Your task to perform on an android device: What's the weather going to be tomorrow? Image 0: 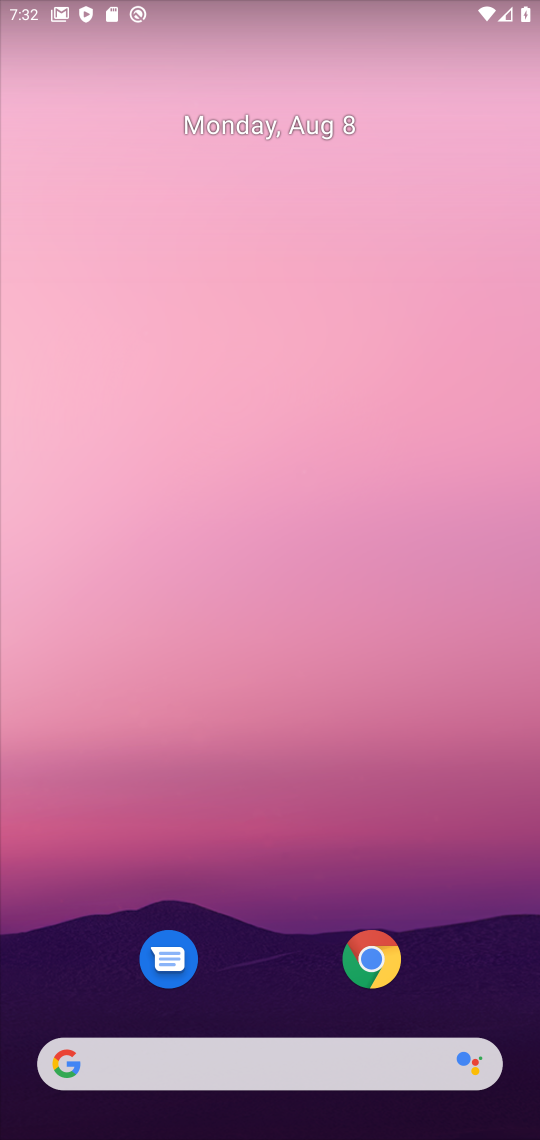
Step 0: drag from (482, 985) to (210, 68)
Your task to perform on an android device: What's the weather going to be tomorrow? Image 1: 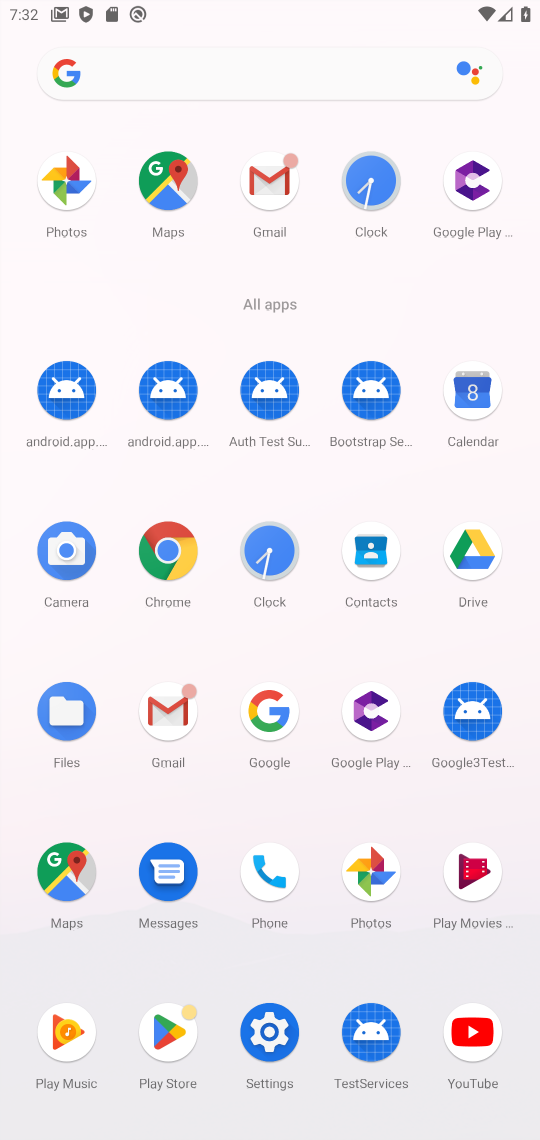
Step 1: click (269, 723)
Your task to perform on an android device: What's the weather going to be tomorrow? Image 2: 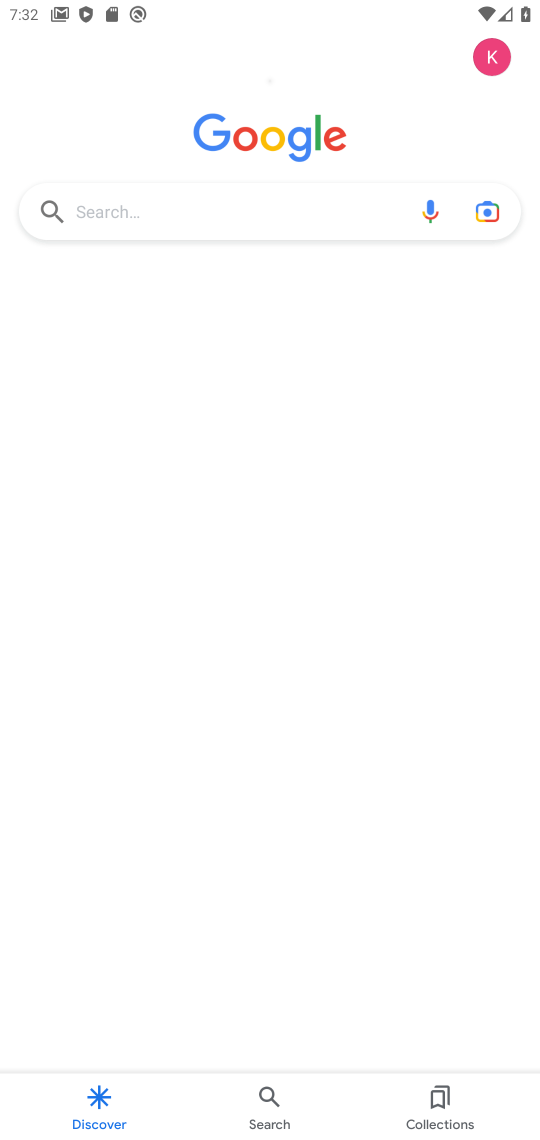
Step 2: click (148, 210)
Your task to perform on an android device: What's the weather going to be tomorrow? Image 3: 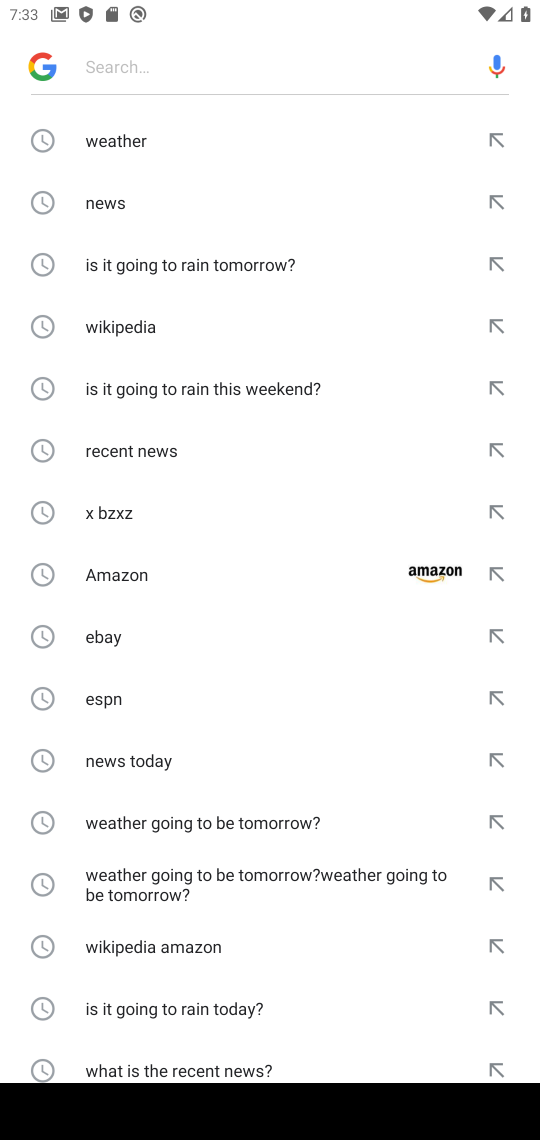
Step 3: type "What's the weather going to be tomorrow?"
Your task to perform on an android device: What's the weather going to be tomorrow? Image 4: 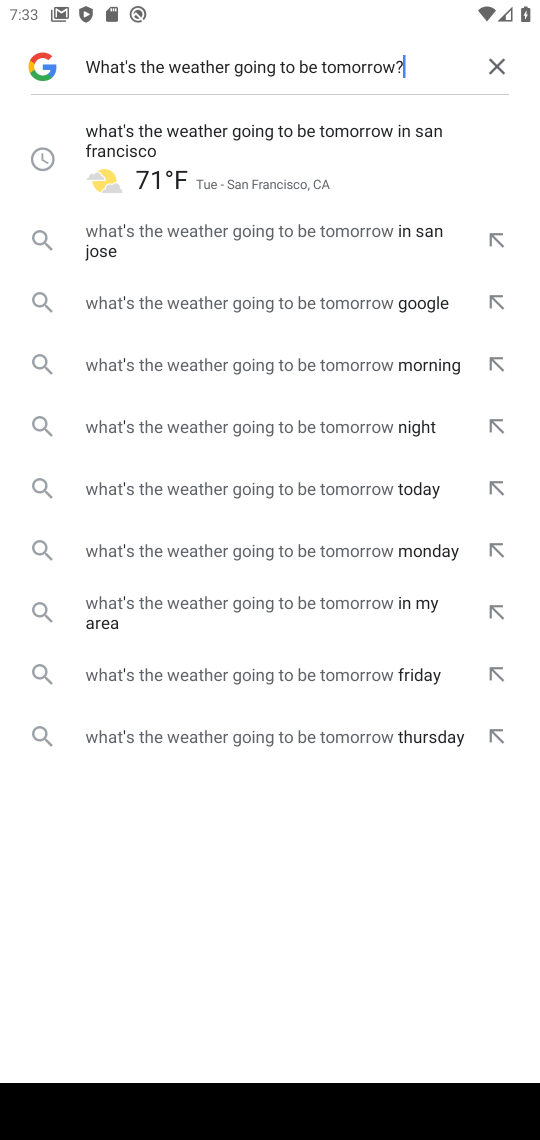
Step 4: task complete